Your task to perform on an android device: delete browsing data in the chrome app Image 0: 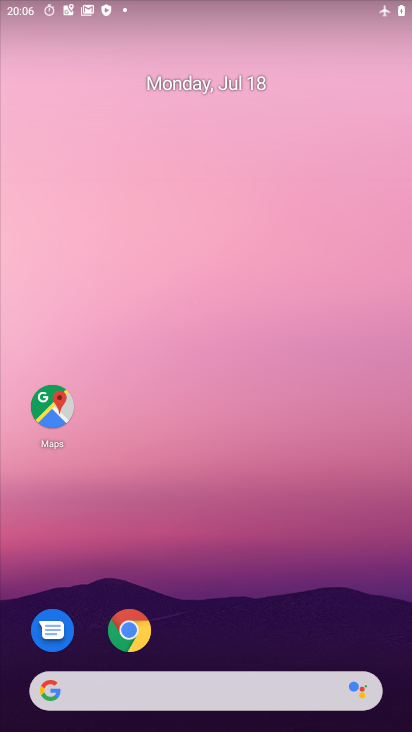
Step 0: drag from (307, 520) to (256, 115)
Your task to perform on an android device: delete browsing data in the chrome app Image 1: 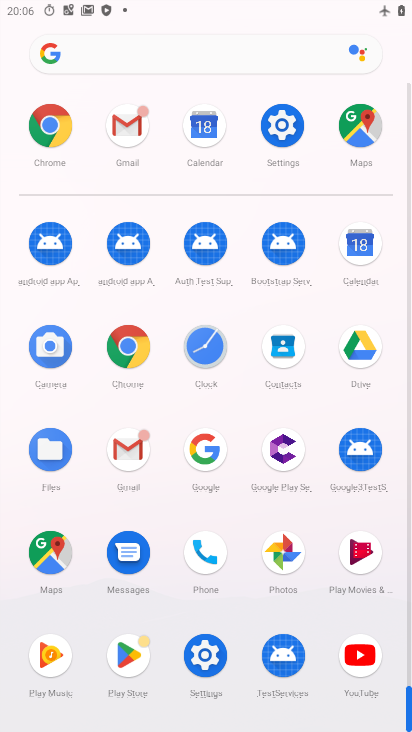
Step 1: click (119, 330)
Your task to perform on an android device: delete browsing data in the chrome app Image 2: 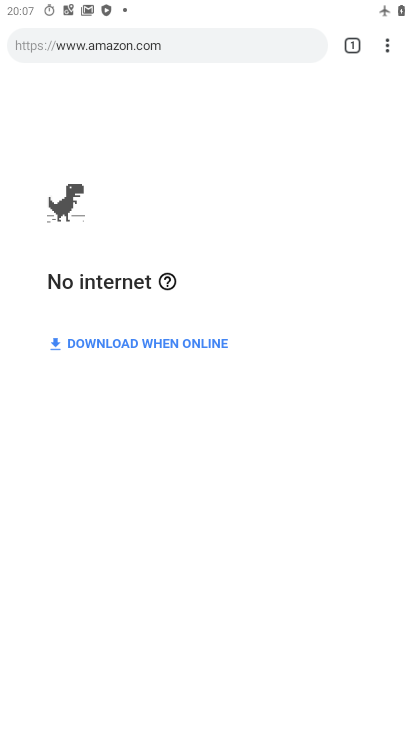
Step 2: press home button
Your task to perform on an android device: delete browsing data in the chrome app Image 3: 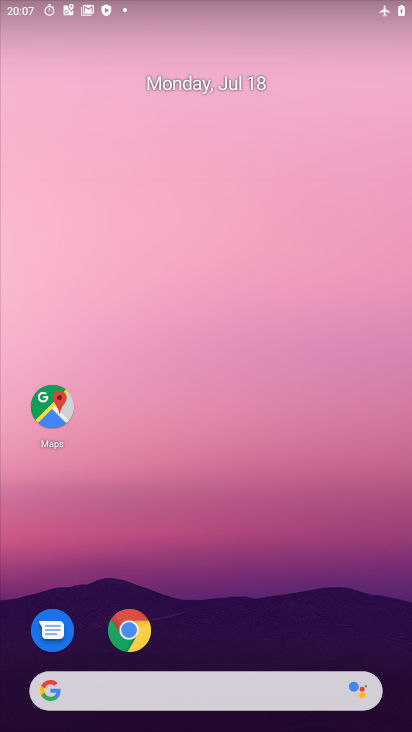
Step 3: drag from (255, 556) to (342, 10)
Your task to perform on an android device: delete browsing data in the chrome app Image 4: 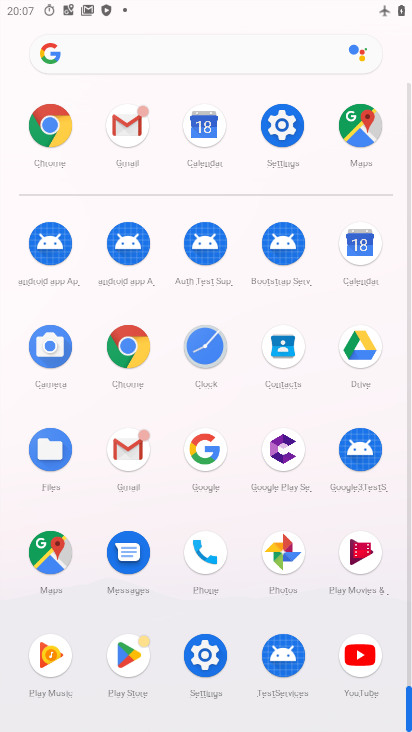
Step 4: click (121, 351)
Your task to perform on an android device: delete browsing data in the chrome app Image 5: 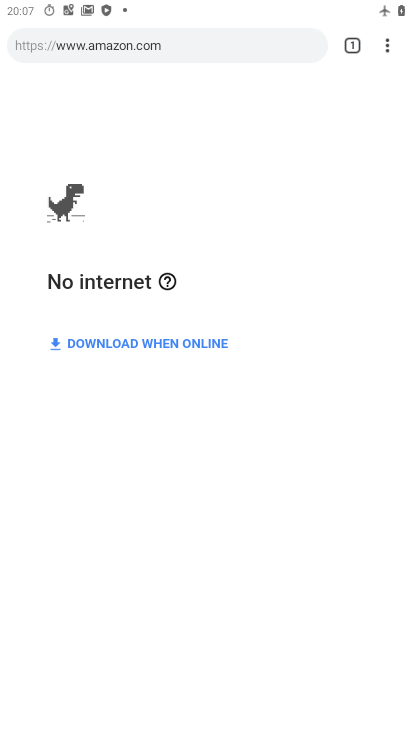
Step 5: task complete